Your task to perform on an android device: Open Google Chrome and click the shortcut for Amazon.com Image 0: 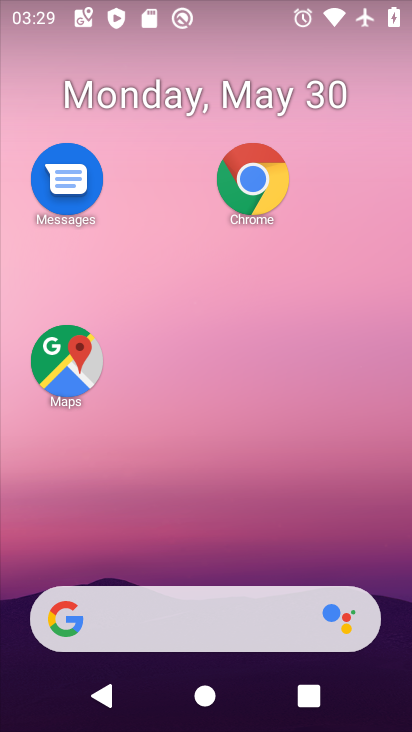
Step 0: drag from (205, 538) to (206, 147)
Your task to perform on an android device: Open Google Chrome and click the shortcut for Amazon.com Image 1: 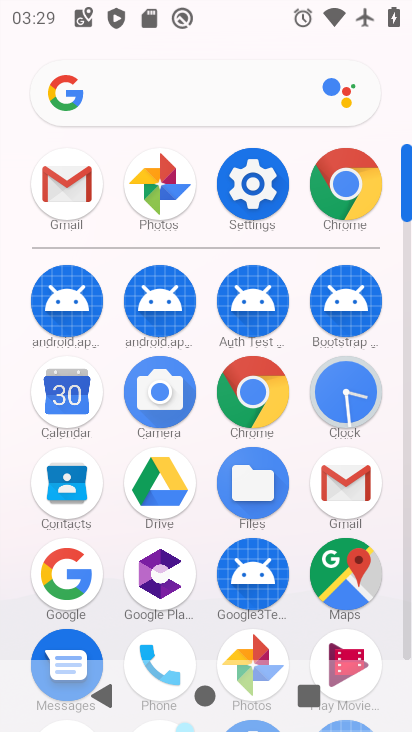
Step 1: click (348, 215)
Your task to perform on an android device: Open Google Chrome and click the shortcut for Amazon.com Image 2: 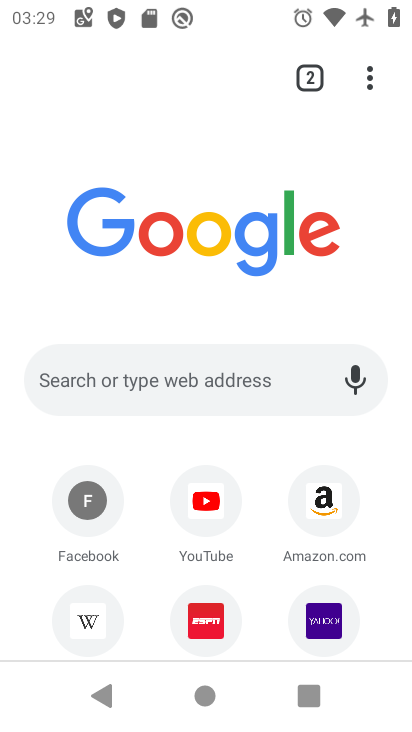
Step 2: click (313, 541)
Your task to perform on an android device: Open Google Chrome and click the shortcut for Amazon.com Image 3: 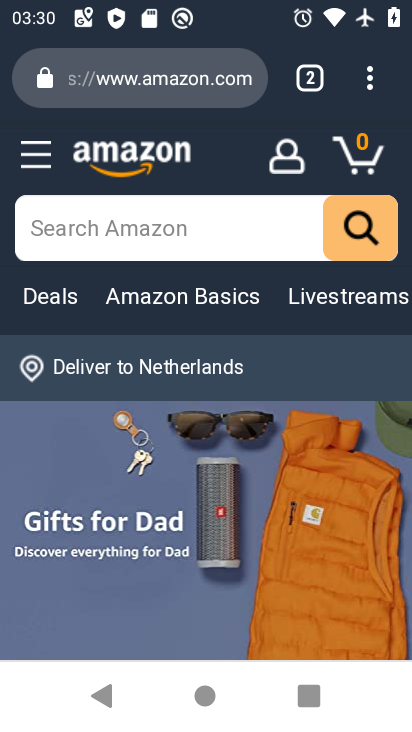
Step 3: task complete